Your task to perform on an android device: Open calendar and show me the first week of next month Image 0: 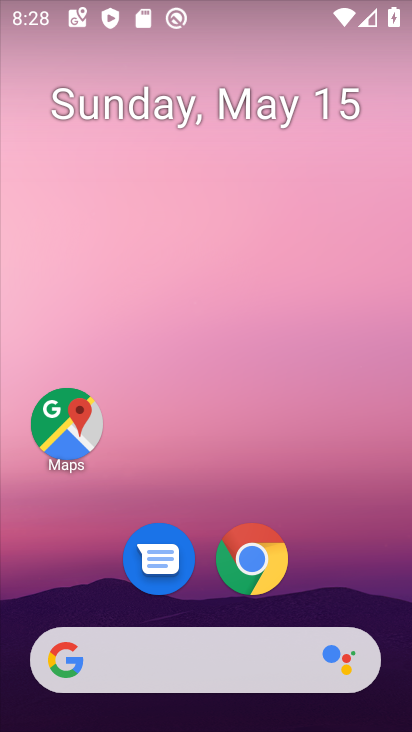
Step 0: drag from (363, 592) to (334, 125)
Your task to perform on an android device: Open calendar and show me the first week of next month Image 1: 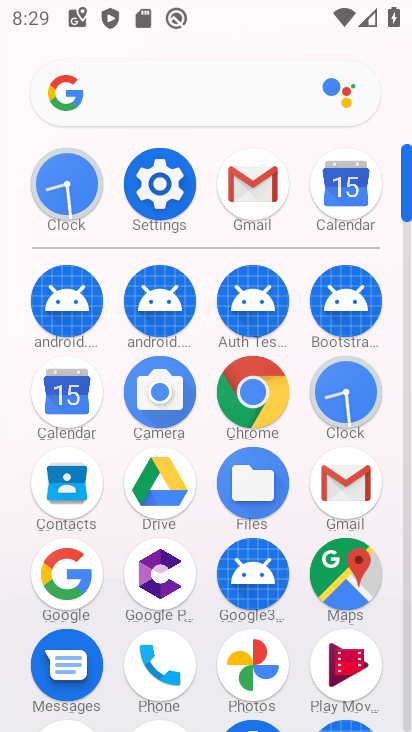
Step 1: click (350, 222)
Your task to perform on an android device: Open calendar and show me the first week of next month Image 2: 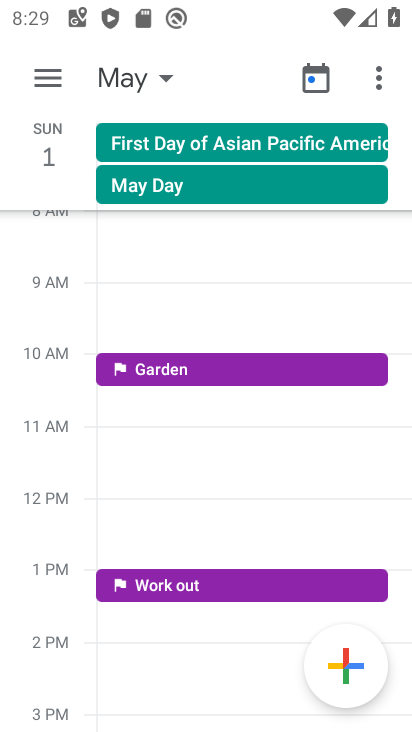
Step 2: click (127, 97)
Your task to perform on an android device: Open calendar and show me the first week of next month Image 3: 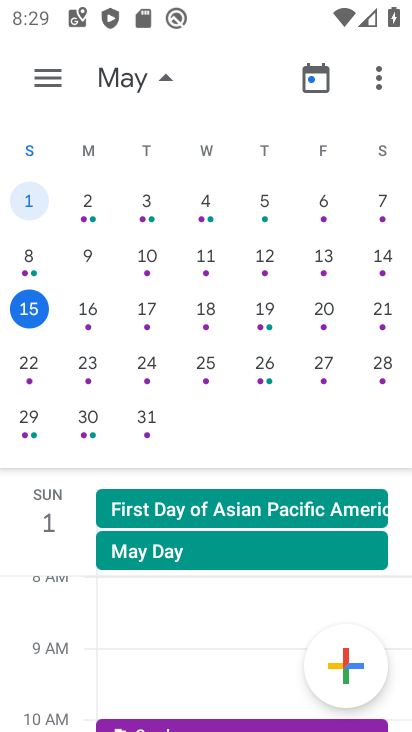
Step 3: drag from (373, 411) to (56, 437)
Your task to perform on an android device: Open calendar and show me the first week of next month Image 4: 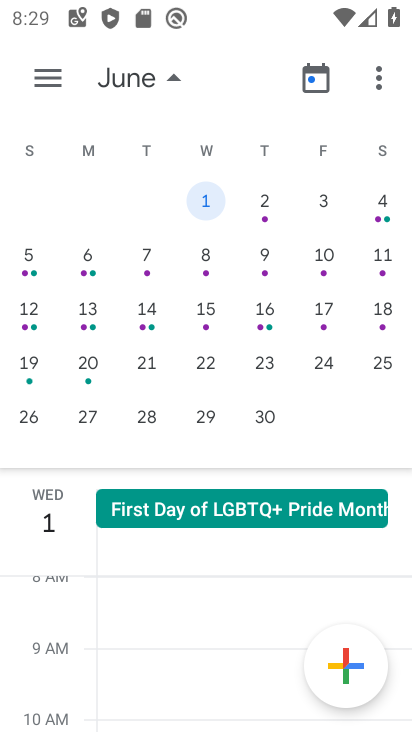
Step 4: click (141, 268)
Your task to perform on an android device: Open calendar and show me the first week of next month Image 5: 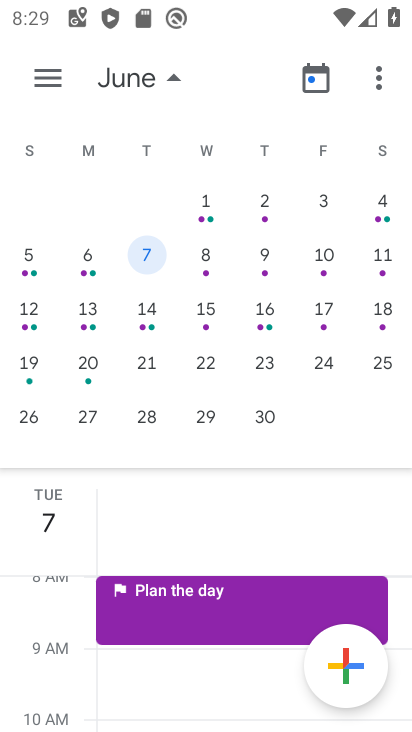
Step 5: task complete